Your task to perform on an android device: toggle sleep mode Image 0: 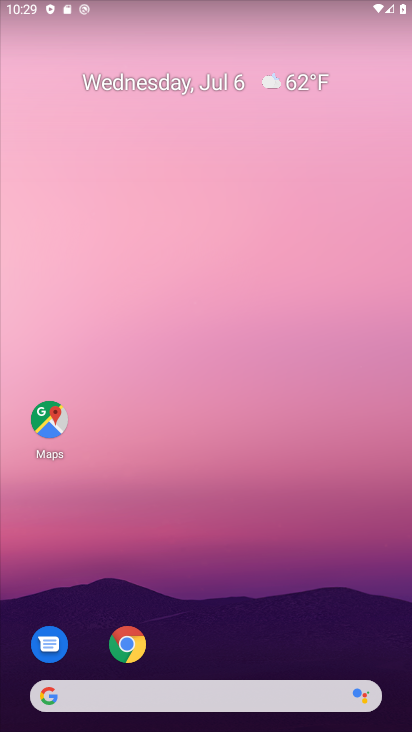
Step 0: drag from (239, 657) to (203, 38)
Your task to perform on an android device: toggle sleep mode Image 1: 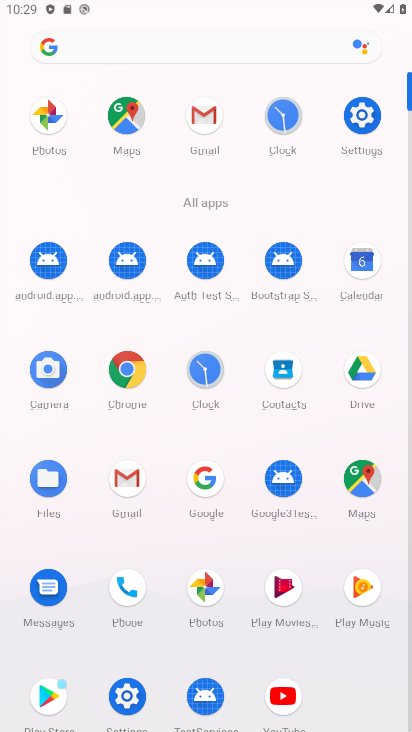
Step 1: press home button
Your task to perform on an android device: toggle sleep mode Image 2: 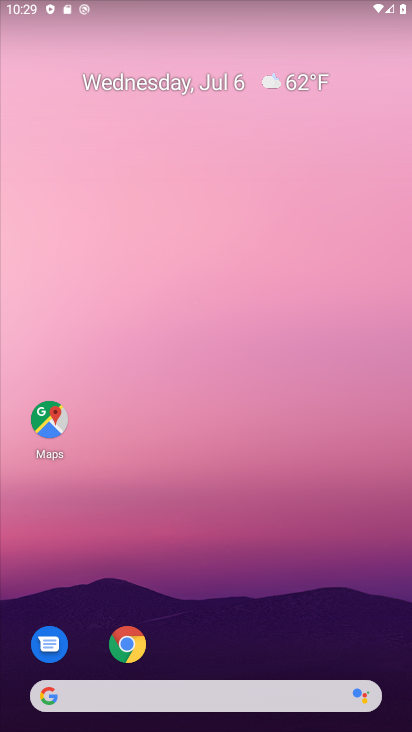
Step 2: drag from (199, 607) to (144, 12)
Your task to perform on an android device: toggle sleep mode Image 3: 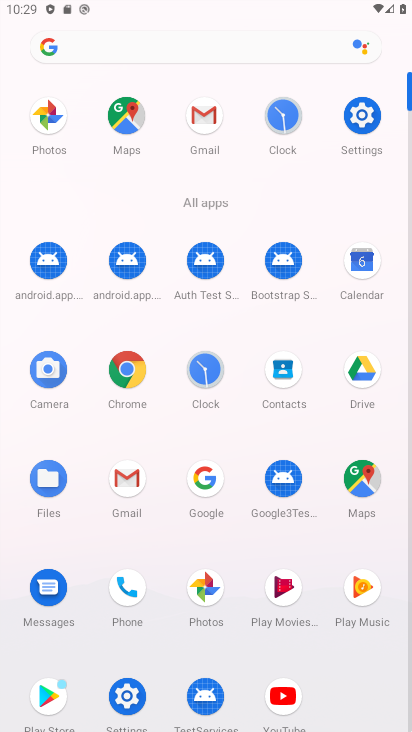
Step 3: click (362, 130)
Your task to perform on an android device: toggle sleep mode Image 4: 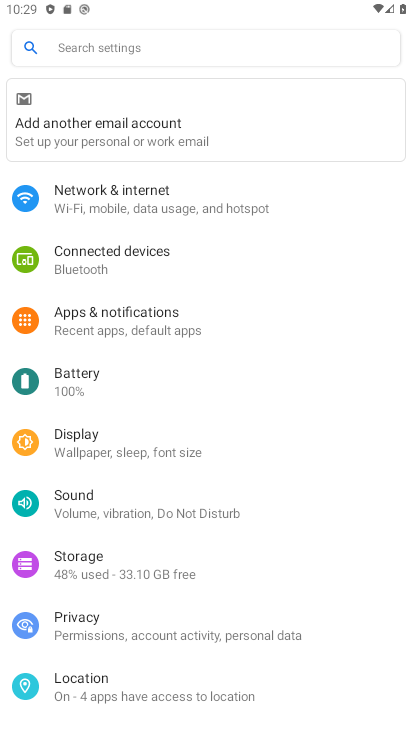
Step 4: click (108, 450)
Your task to perform on an android device: toggle sleep mode Image 5: 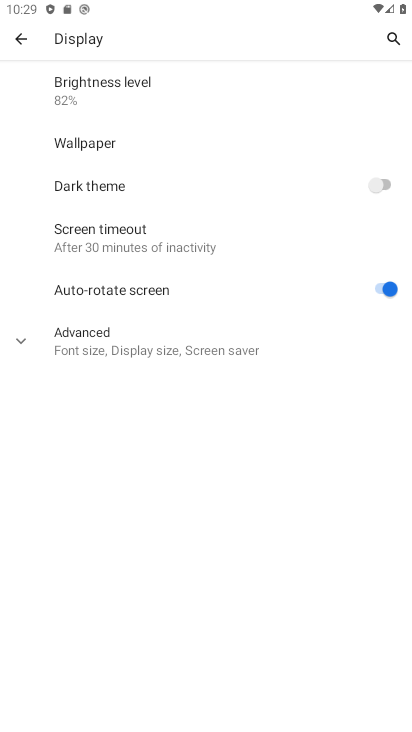
Step 5: task complete